Your task to perform on an android device: Open network settings Image 0: 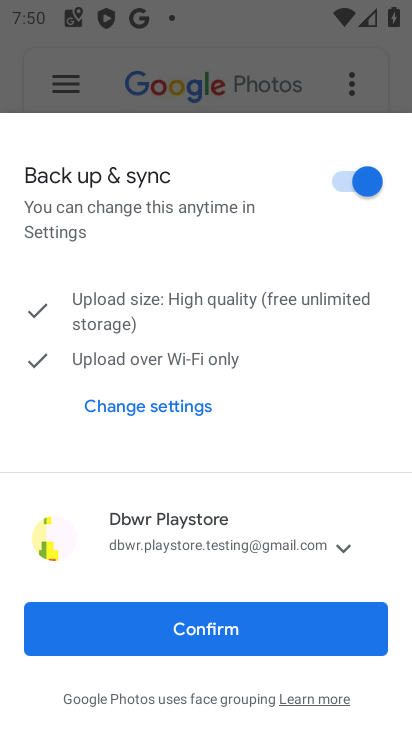
Step 0: press home button
Your task to perform on an android device: Open network settings Image 1: 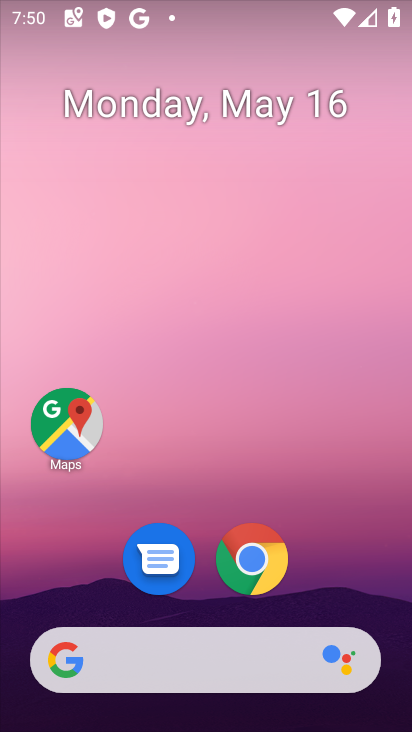
Step 1: drag from (293, 584) to (321, 118)
Your task to perform on an android device: Open network settings Image 2: 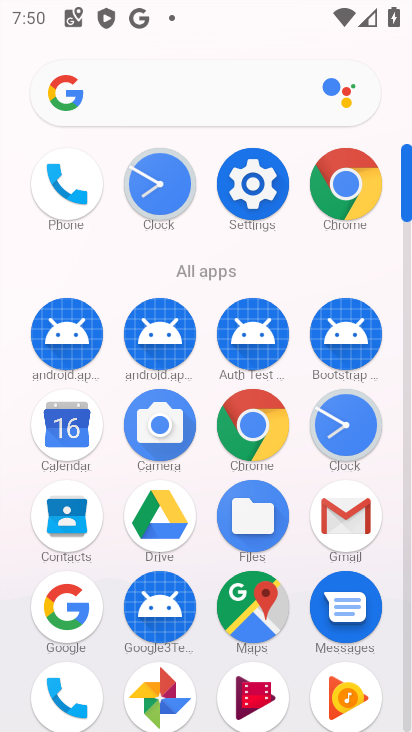
Step 2: click (248, 186)
Your task to perform on an android device: Open network settings Image 3: 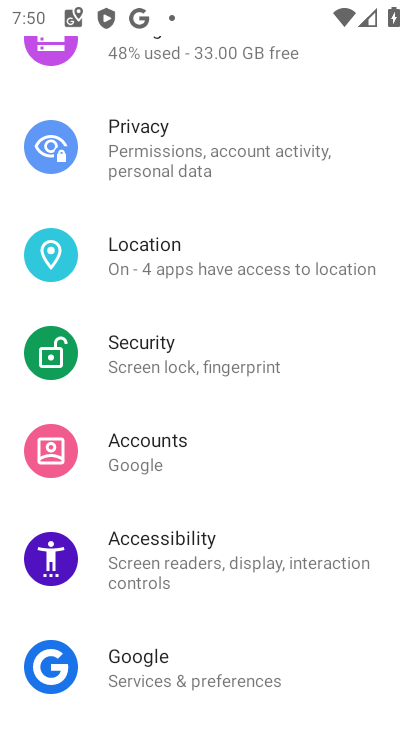
Step 3: drag from (276, 126) to (291, 608)
Your task to perform on an android device: Open network settings Image 4: 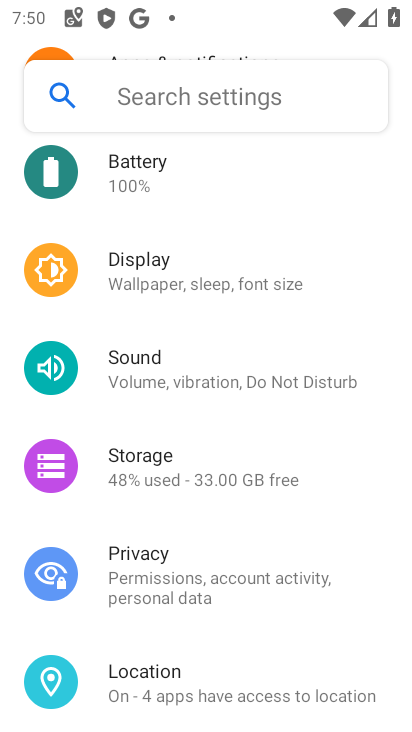
Step 4: drag from (255, 224) to (276, 604)
Your task to perform on an android device: Open network settings Image 5: 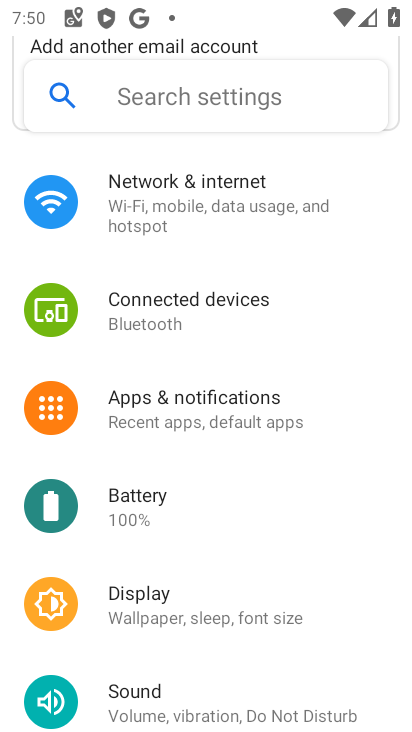
Step 5: drag from (296, 194) to (332, 537)
Your task to perform on an android device: Open network settings Image 6: 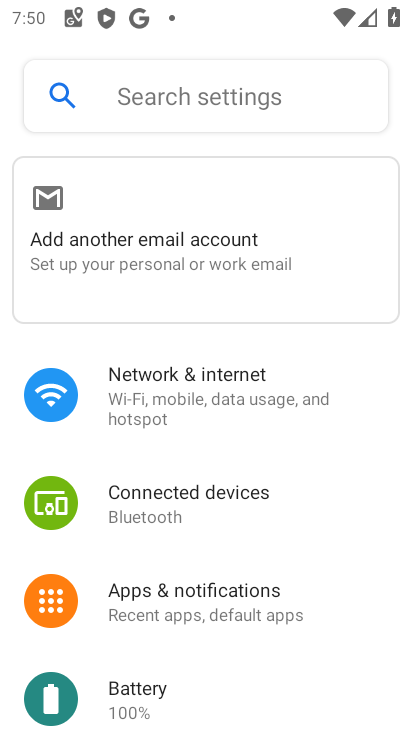
Step 6: click (246, 385)
Your task to perform on an android device: Open network settings Image 7: 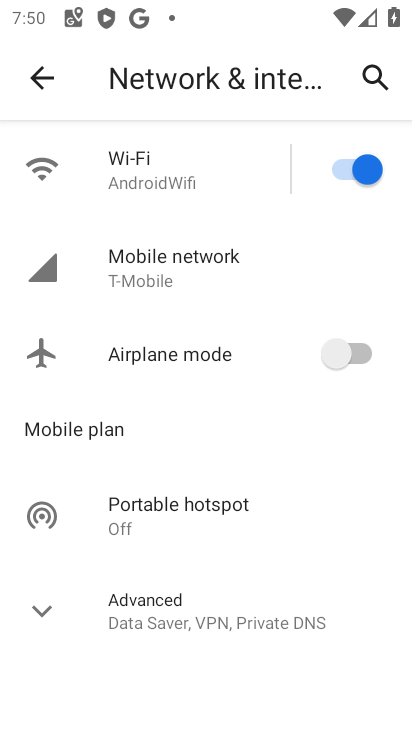
Step 7: task complete